Your task to perform on an android device: toggle notifications settings in the gmail app Image 0: 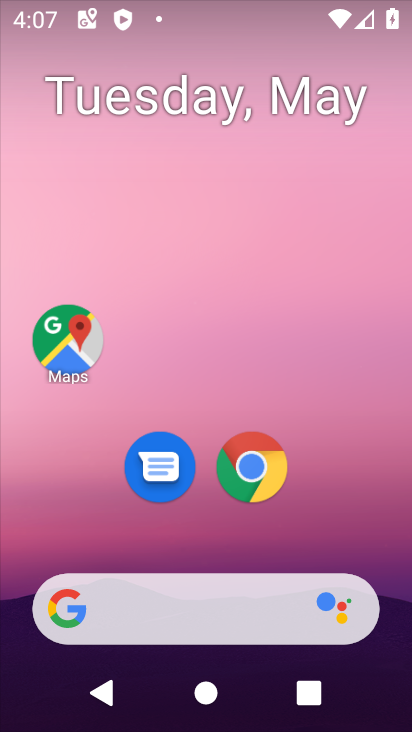
Step 0: drag from (155, 721) to (283, 12)
Your task to perform on an android device: toggle notifications settings in the gmail app Image 1: 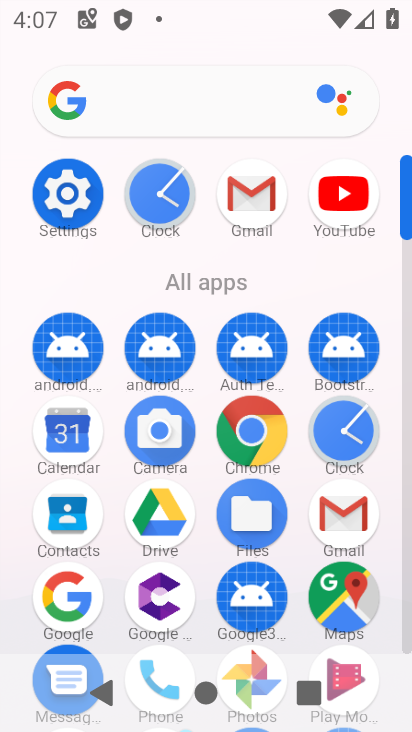
Step 1: click (356, 515)
Your task to perform on an android device: toggle notifications settings in the gmail app Image 2: 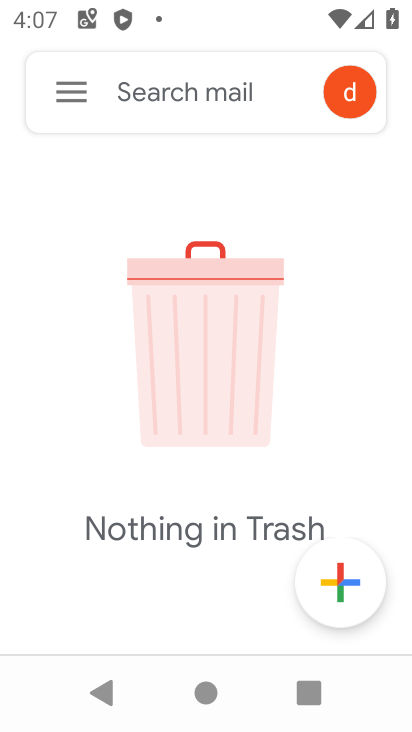
Step 2: click (78, 98)
Your task to perform on an android device: toggle notifications settings in the gmail app Image 3: 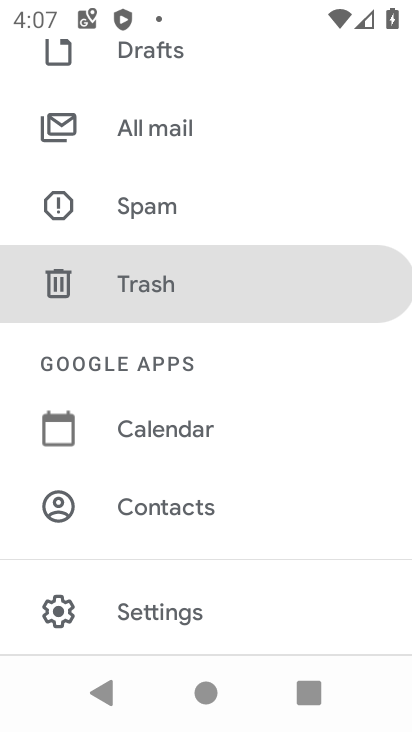
Step 3: click (138, 620)
Your task to perform on an android device: toggle notifications settings in the gmail app Image 4: 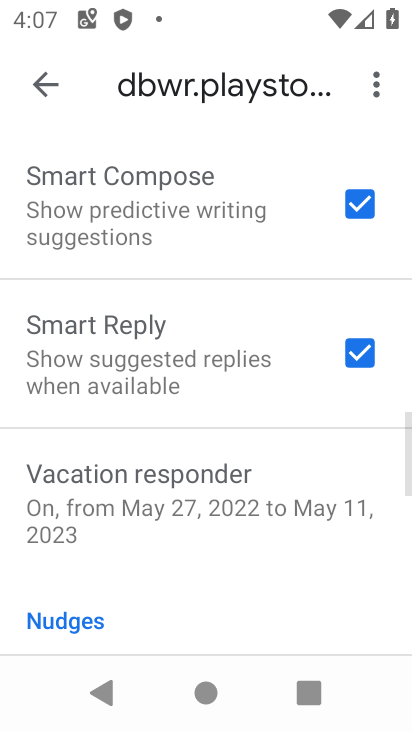
Step 4: drag from (124, 202) to (32, 579)
Your task to perform on an android device: toggle notifications settings in the gmail app Image 5: 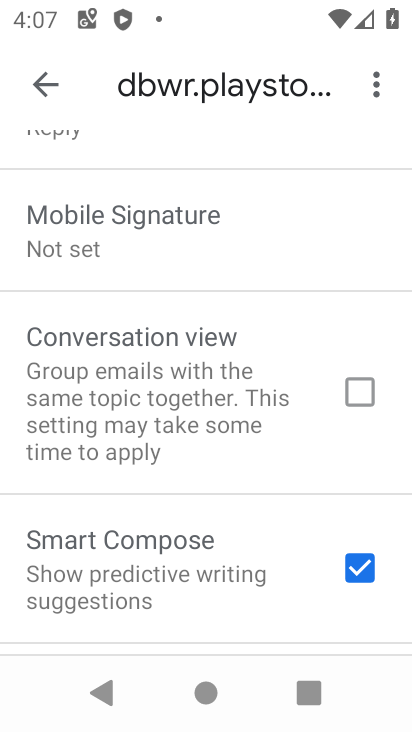
Step 5: drag from (72, 231) to (79, 559)
Your task to perform on an android device: toggle notifications settings in the gmail app Image 6: 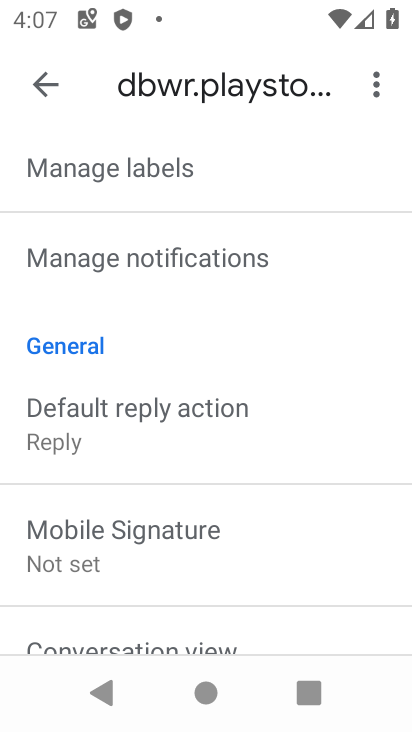
Step 6: drag from (128, 240) to (125, 575)
Your task to perform on an android device: toggle notifications settings in the gmail app Image 7: 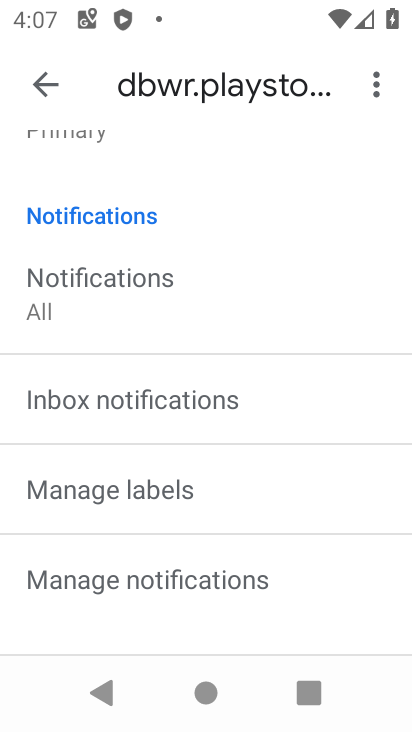
Step 7: click (117, 306)
Your task to perform on an android device: toggle notifications settings in the gmail app Image 8: 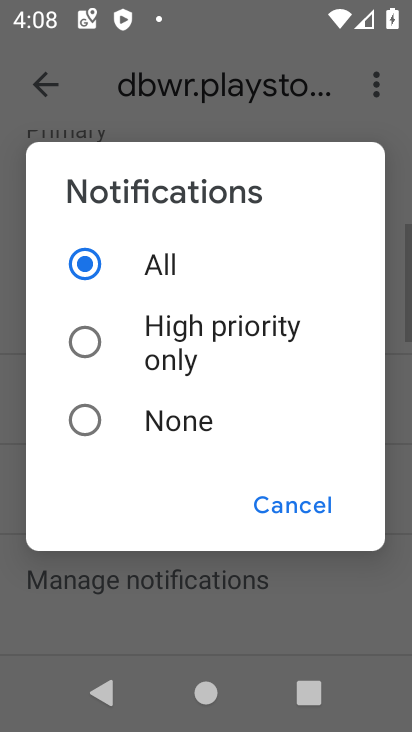
Step 8: click (166, 430)
Your task to perform on an android device: toggle notifications settings in the gmail app Image 9: 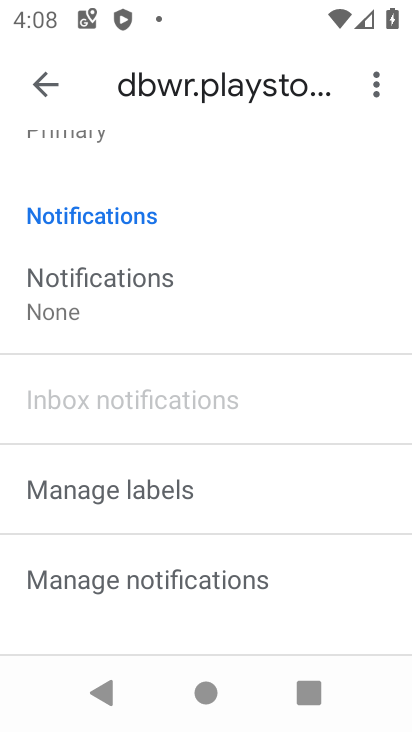
Step 9: task complete